Your task to perform on an android device: open device folders in google photos Image 0: 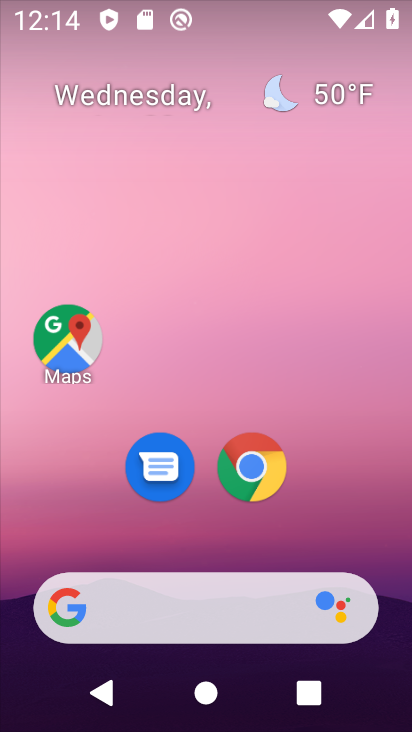
Step 0: drag from (210, 393) to (242, 83)
Your task to perform on an android device: open device folders in google photos Image 1: 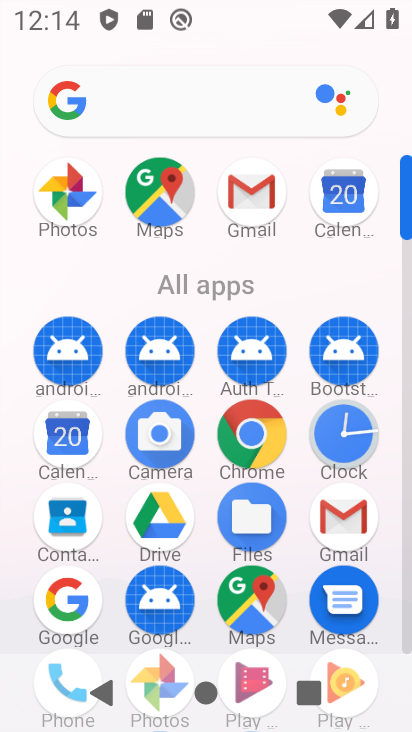
Step 1: click (59, 185)
Your task to perform on an android device: open device folders in google photos Image 2: 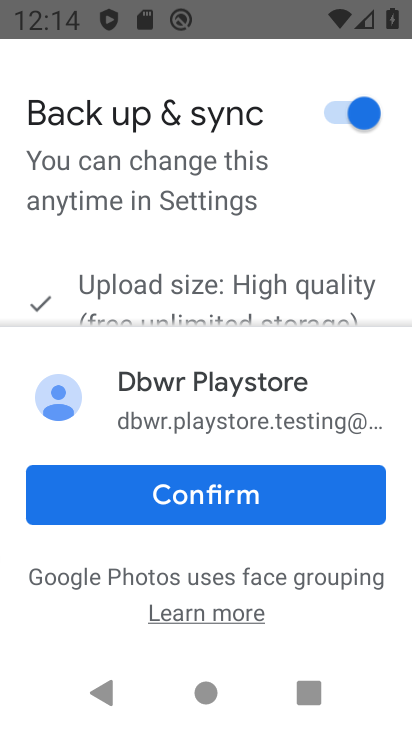
Step 2: click (197, 486)
Your task to perform on an android device: open device folders in google photos Image 3: 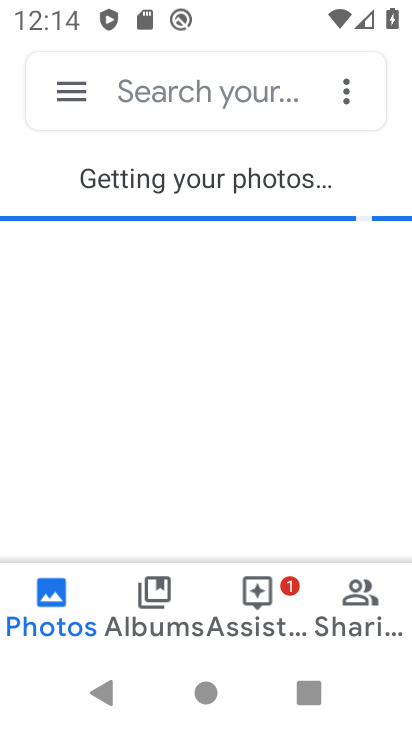
Step 3: click (55, 89)
Your task to perform on an android device: open device folders in google photos Image 4: 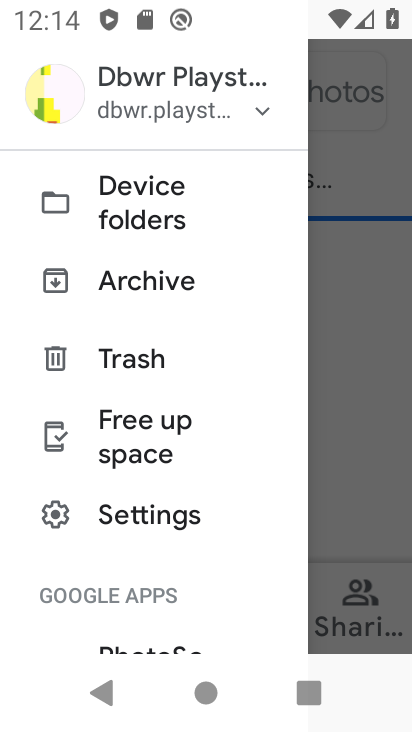
Step 4: click (109, 197)
Your task to perform on an android device: open device folders in google photos Image 5: 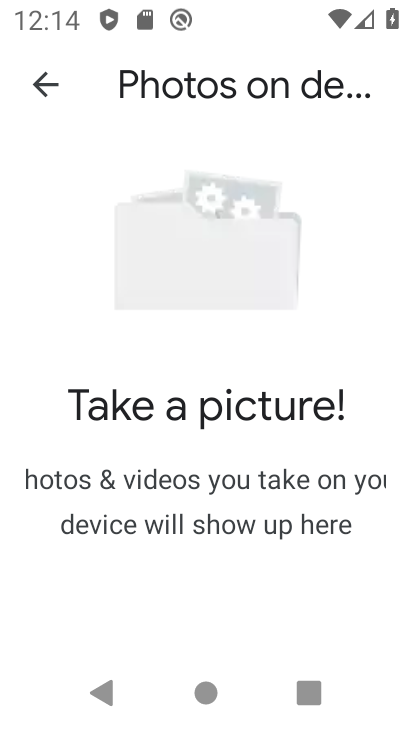
Step 5: task complete